Your task to perform on an android device: Go to Yahoo.com Image 0: 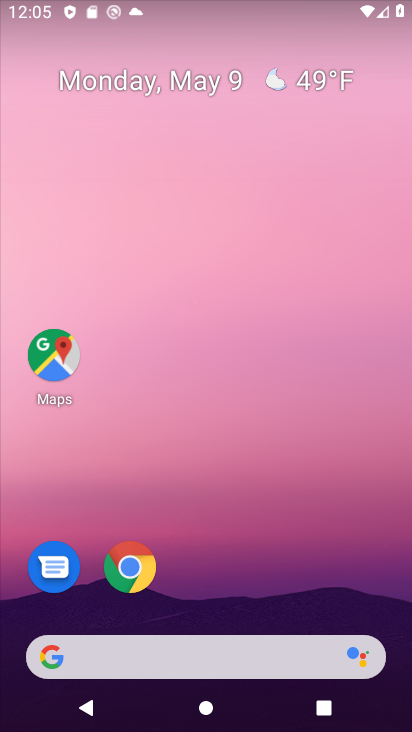
Step 0: click (123, 561)
Your task to perform on an android device: Go to Yahoo.com Image 1: 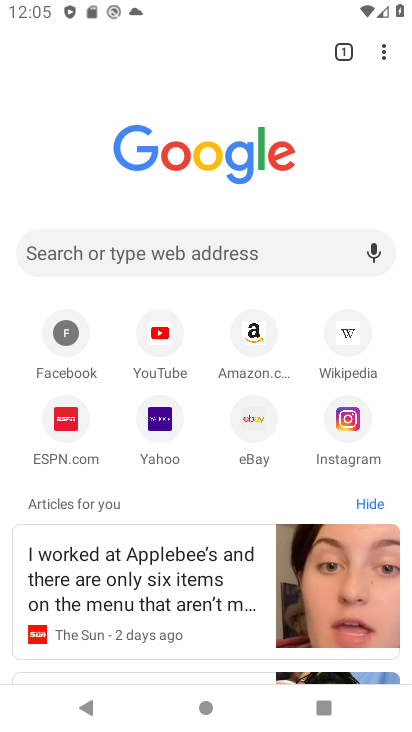
Step 1: click (159, 420)
Your task to perform on an android device: Go to Yahoo.com Image 2: 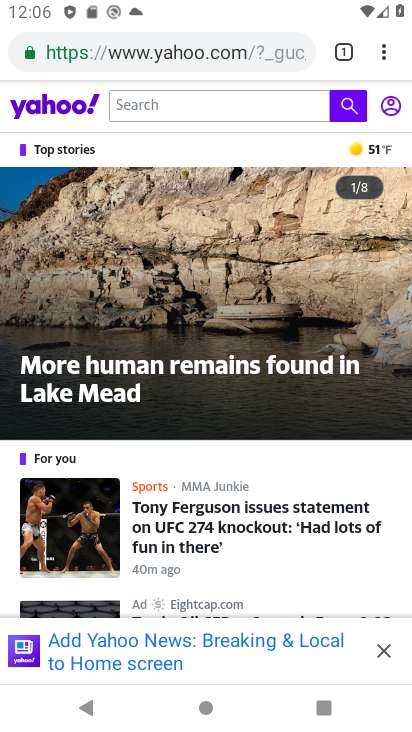
Step 2: task complete